Your task to perform on an android device: visit the assistant section in the google photos Image 0: 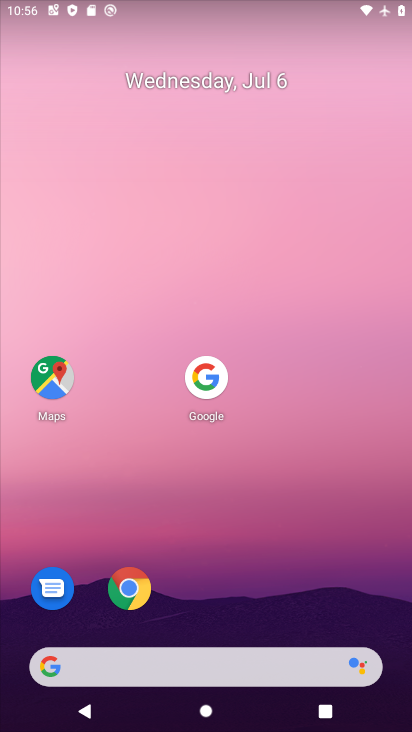
Step 0: drag from (166, 663) to (330, 112)
Your task to perform on an android device: visit the assistant section in the google photos Image 1: 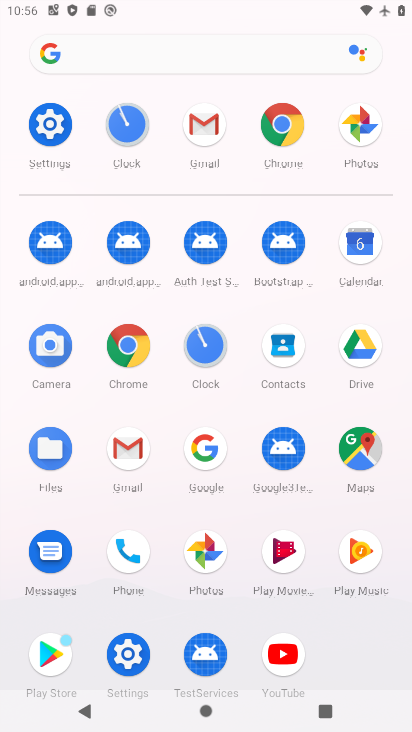
Step 1: click (204, 553)
Your task to perform on an android device: visit the assistant section in the google photos Image 2: 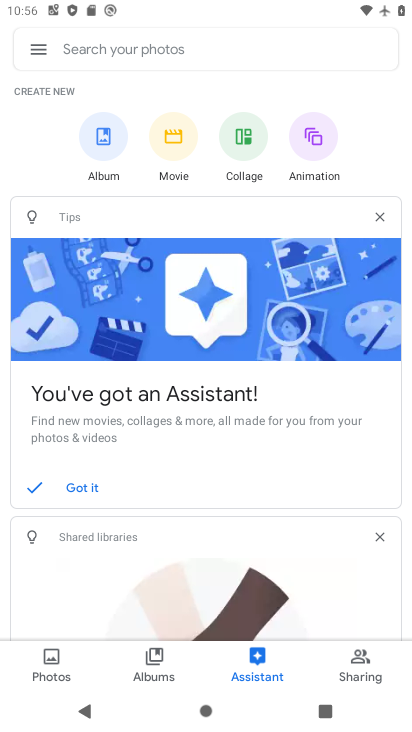
Step 2: task complete